Your task to perform on an android device: Go to wifi settings Image 0: 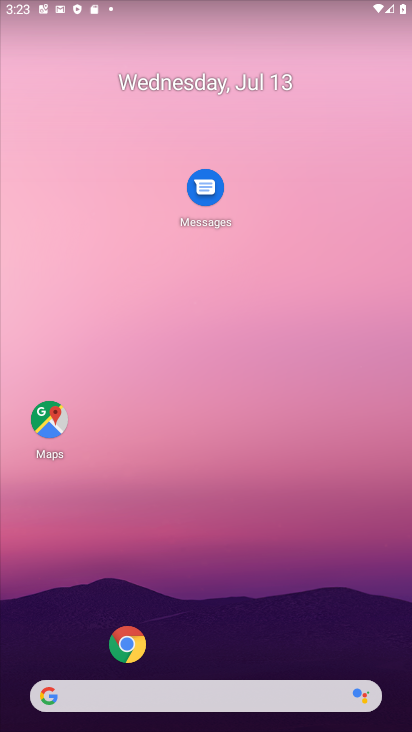
Step 0: press home button
Your task to perform on an android device: Go to wifi settings Image 1: 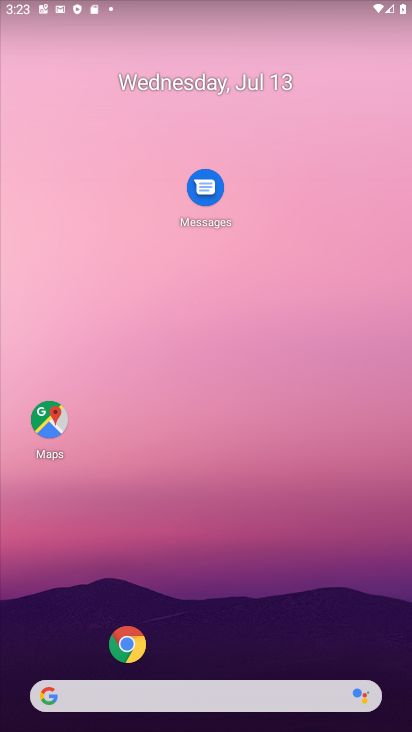
Step 1: drag from (34, 703) to (125, 11)
Your task to perform on an android device: Go to wifi settings Image 2: 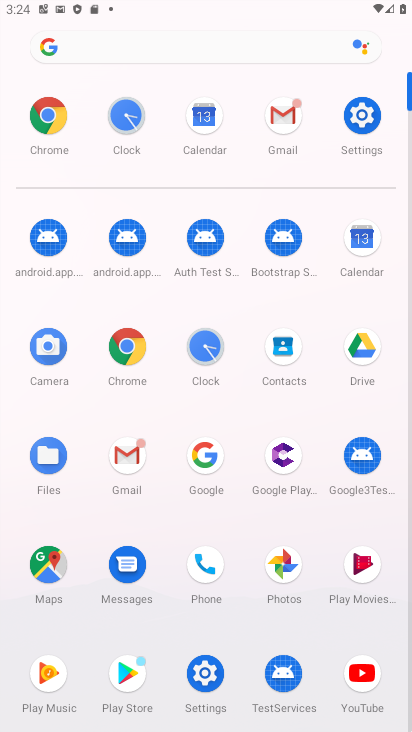
Step 2: click (200, 673)
Your task to perform on an android device: Go to wifi settings Image 3: 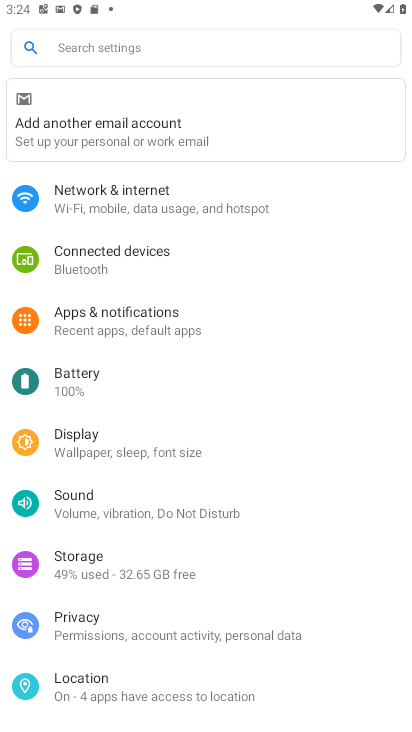
Step 3: click (119, 191)
Your task to perform on an android device: Go to wifi settings Image 4: 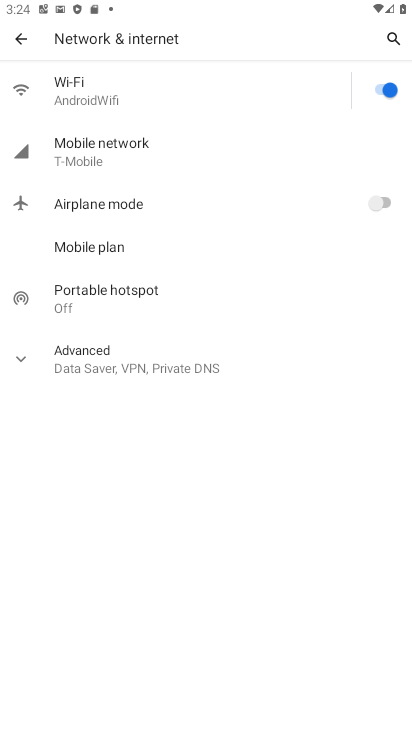
Step 4: task complete